Your task to perform on an android device: Open accessibility settings Image 0: 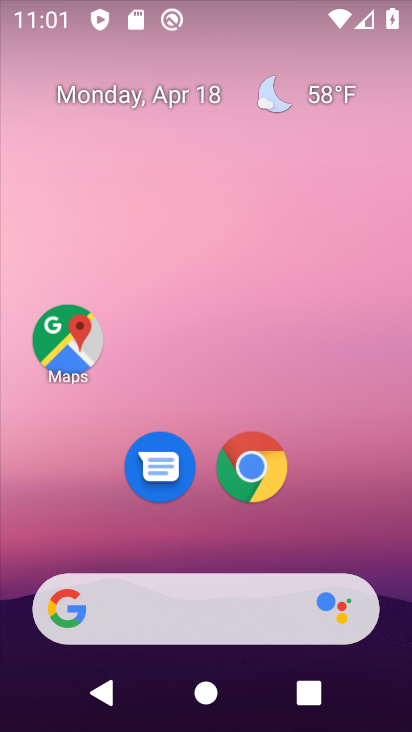
Step 0: drag from (204, 548) to (190, 60)
Your task to perform on an android device: Open accessibility settings Image 1: 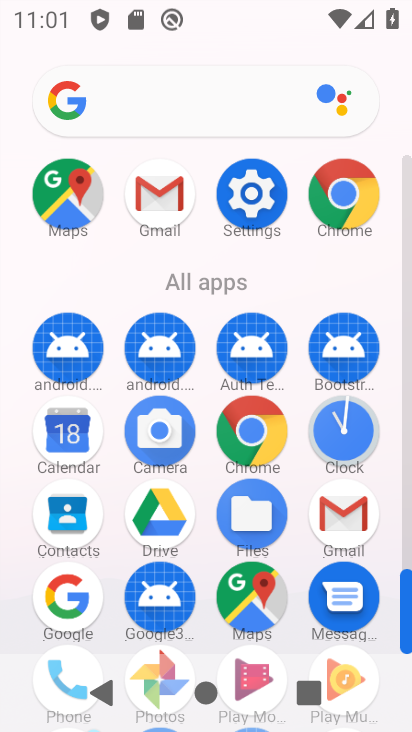
Step 1: click (256, 205)
Your task to perform on an android device: Open accessibility settings Image 2: 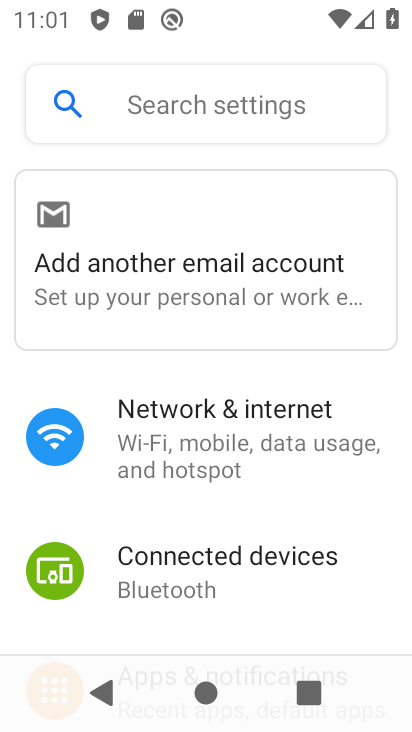
Step 2: drag from (218, 357) to (251, 114)
Your task to perform on an android device: Open accessibility settings Image 3: 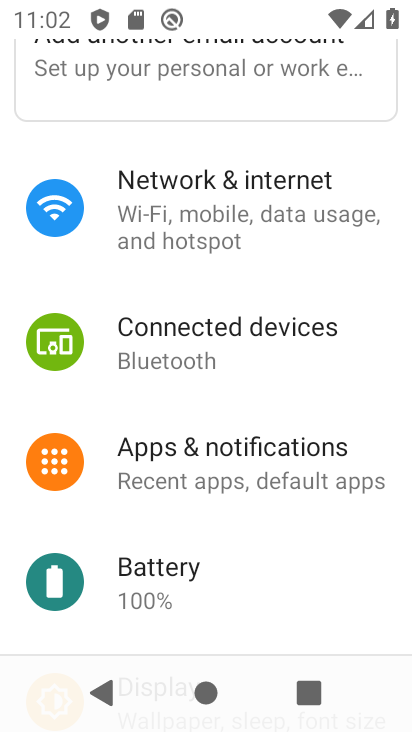
Step 3: drag from (257, 604) to (245, 237)
Your task to perform on an android device: Open accessibility settings Image 4: 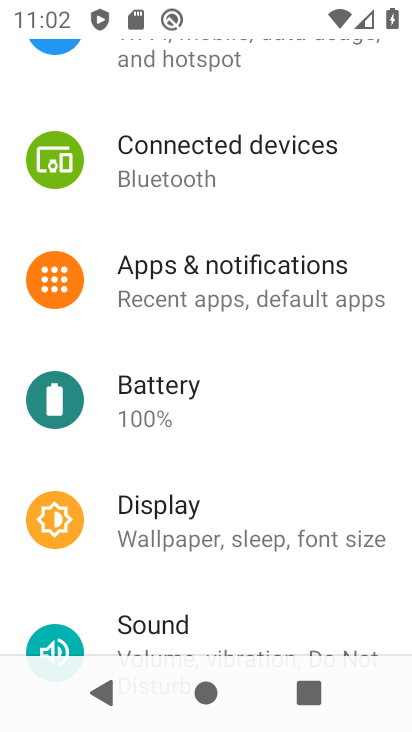
Step 4: drag from (257, 571) to (265, 162)
Your task to perform on an android device: Open accessibility settings Image 5: 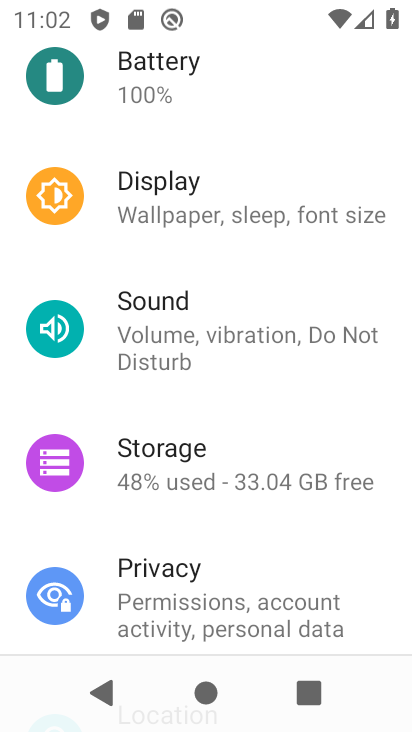
Step 5: drag from (255, 495) to (262, 150)
Your task to perform on an android device: Open accessibility settings Image 6: 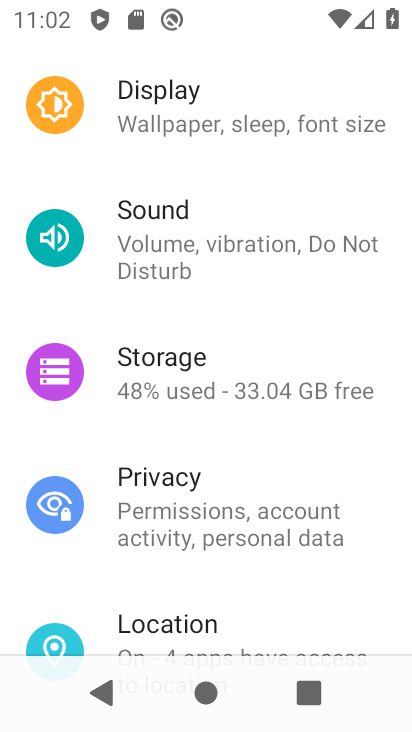
Step 6: drag from (246, 579) to (249, 176)
Your task to perform on an android device: Open accessibility settings Image 7: 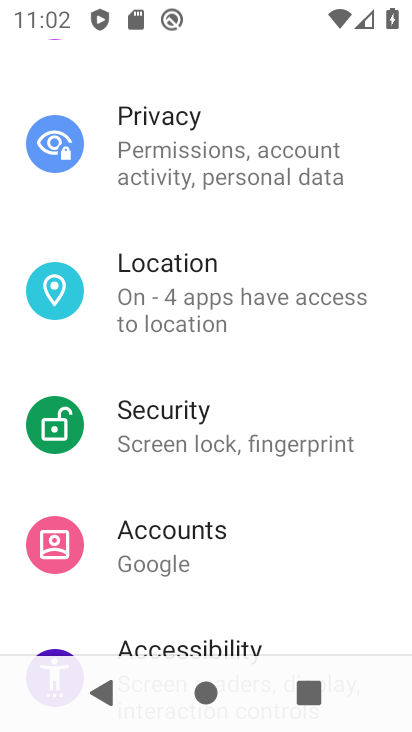
Step 7: click (241, 635)
Your task to perform on an android device: Open accessibility settings Image 8: 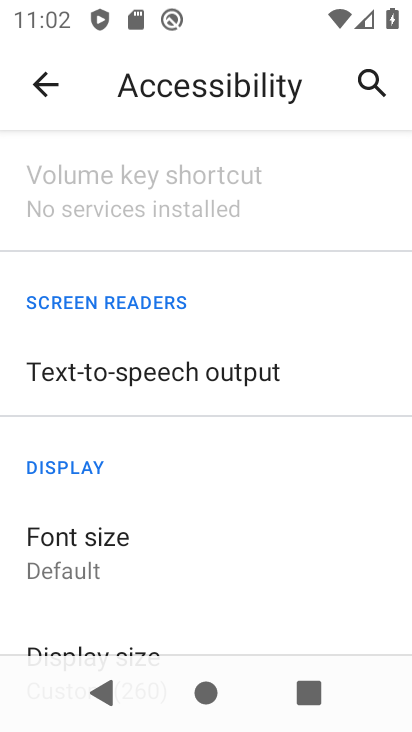
Step 8: task complete